Your task to perform on an android device: turn off notifications in google photos Image 0: 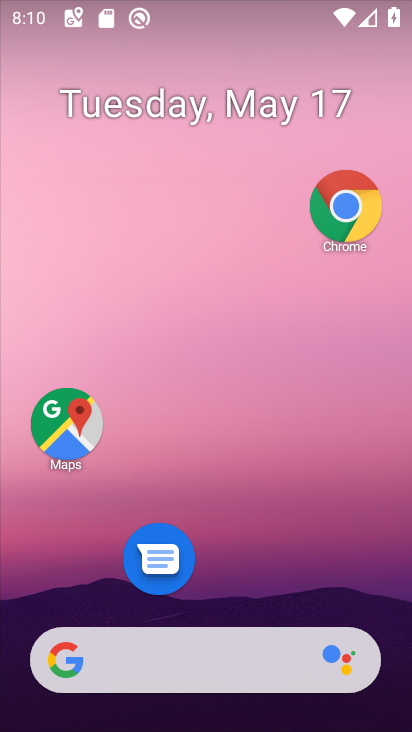
Step 0: drag from (243, 586) to (232, 209)
Your task to perform on an android device: turn off notifications in google photos Image 1: 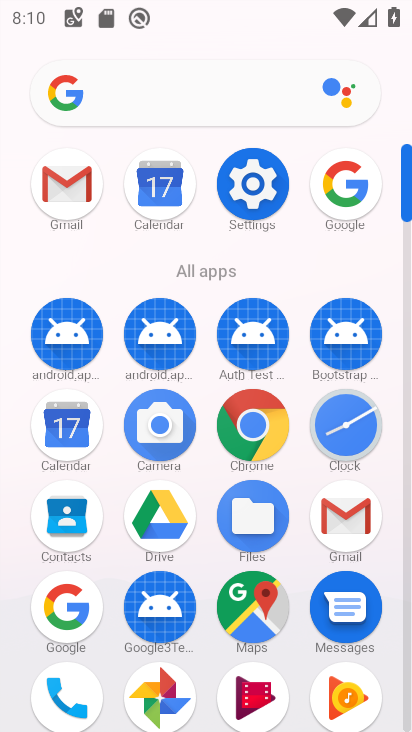
Step 1: drag from (268, 517) to (311, 189)
Your task to perform on an android device: turn off notifications in google photos Image 2: 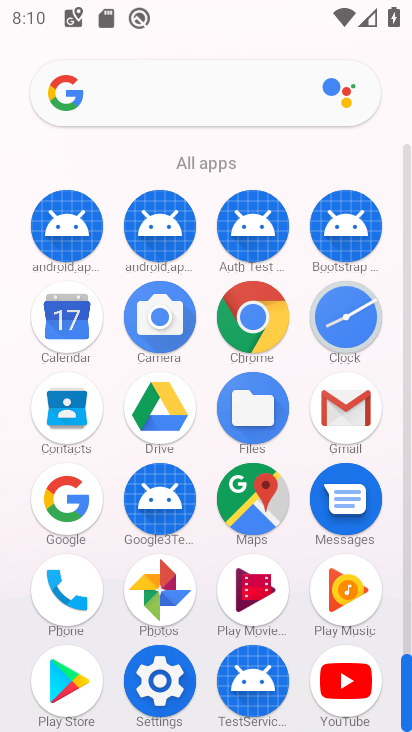
Step 2: click (151, 601)
Your task to perform on an android device: turn off notifications in google photos Image 3: 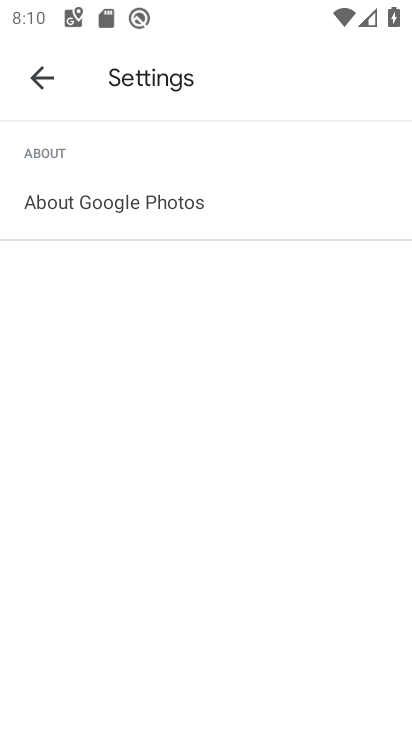
Step 3: click (41, 71)
Your task to perform on an android device: turn off notifications in google photos Image 4: 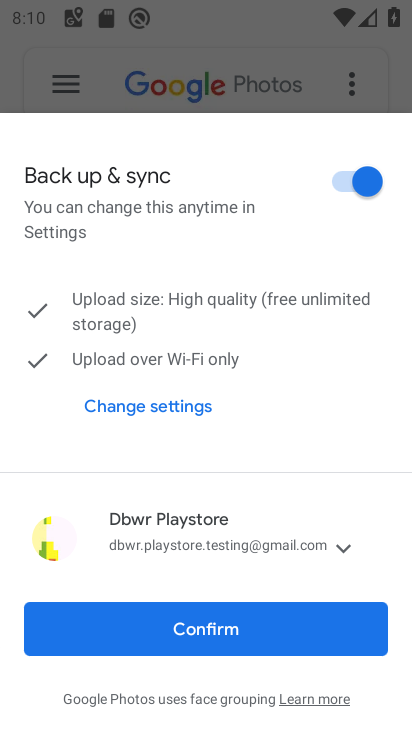
Step 4: click (252, 646)
Your task to perform on an android device: turn off notifications in google photos Image 5: 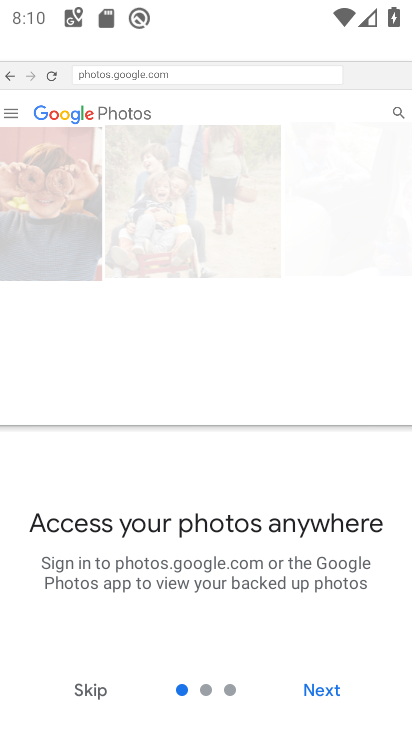
Step 5: click (304, 704)
Your task to perform on an android device: turn off notifications in google photos Image 6: 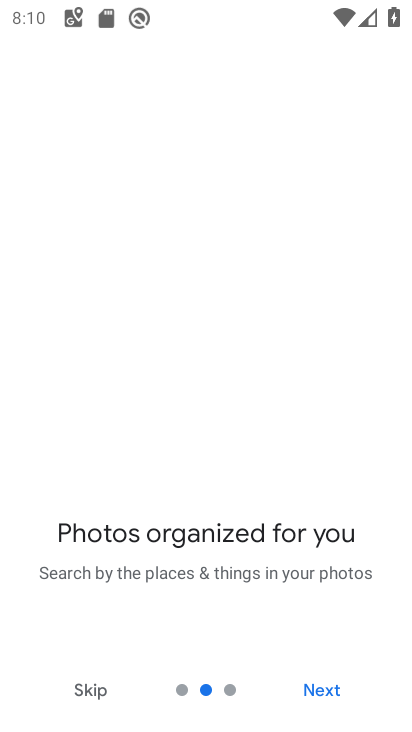
Step 6: click (304, 704)
Your task to perform on an android device: turn off notifications in google photos Image 7: 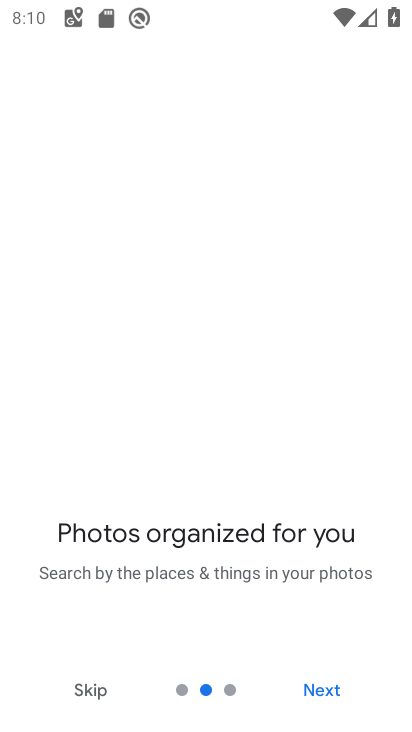
Step 7: click (304, 704)
Your task to perform on an android device: turn off notifications in google photos Image 8: 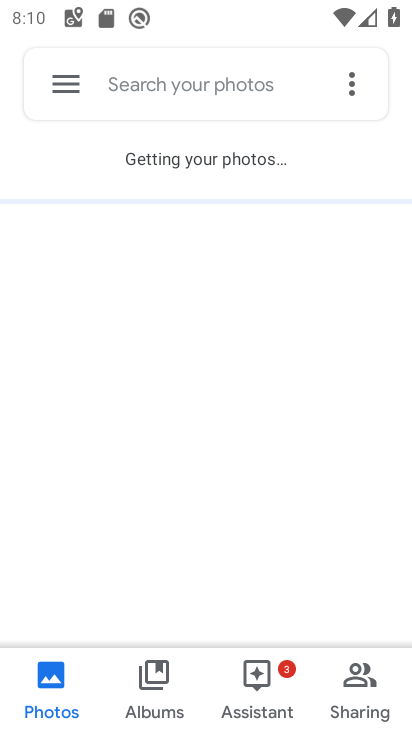
Step 8: click (57, 96)
Your task to perform on an android device: turn off notifications in google photos Image 9: 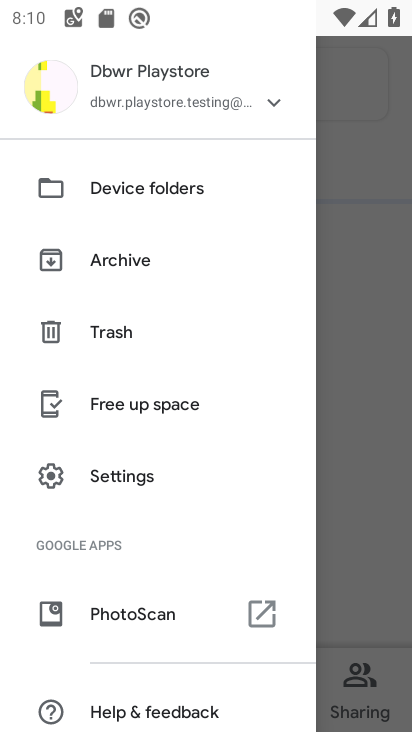
Step 9: click (52, 472)
Your task to perform on an android device: turn off notifications in google photos Image 10: 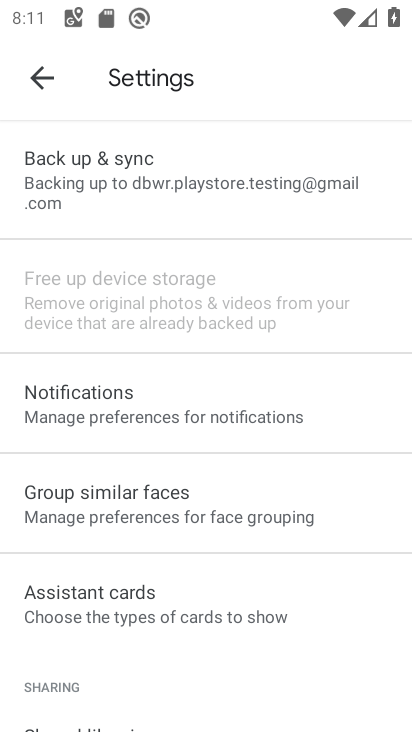
Step 10: click (208, 386)
Your task to perform on an android device: turn off notifications in google photos Image 11: 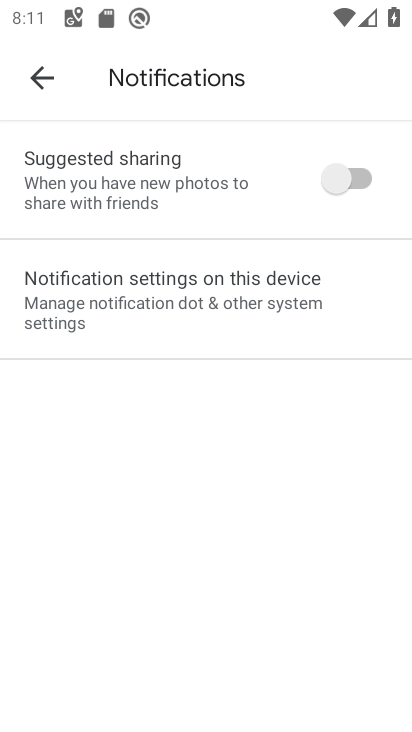
Step 11: click (220, 292)
Your task to perform on an android device: turn off notifications in google photos Image 12: 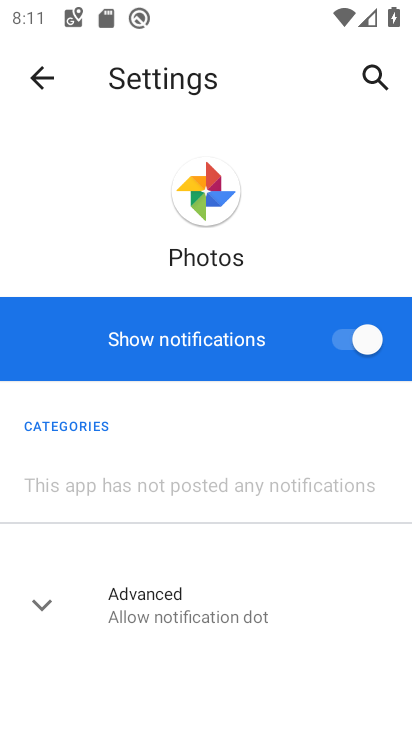
Step 12: click (341, 341)
Your task to perform on an android device: turn off notifications in google photos Image 13: 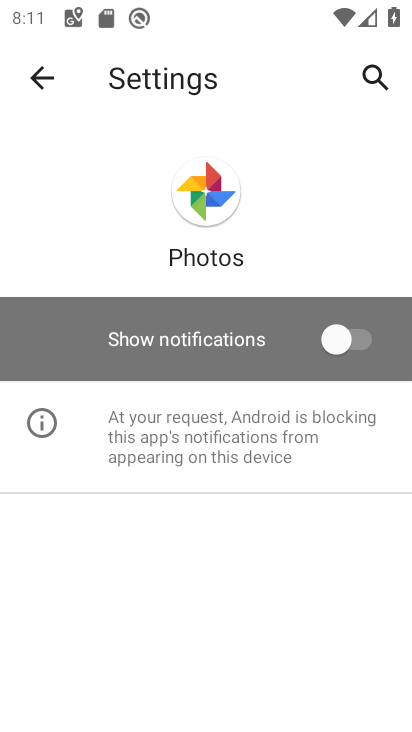
Step 13: task complete